Your task to perform on an android device: View the shopping cart on walmart. Add sony triple a to the cart on walmart, then select checkout. Image 0: 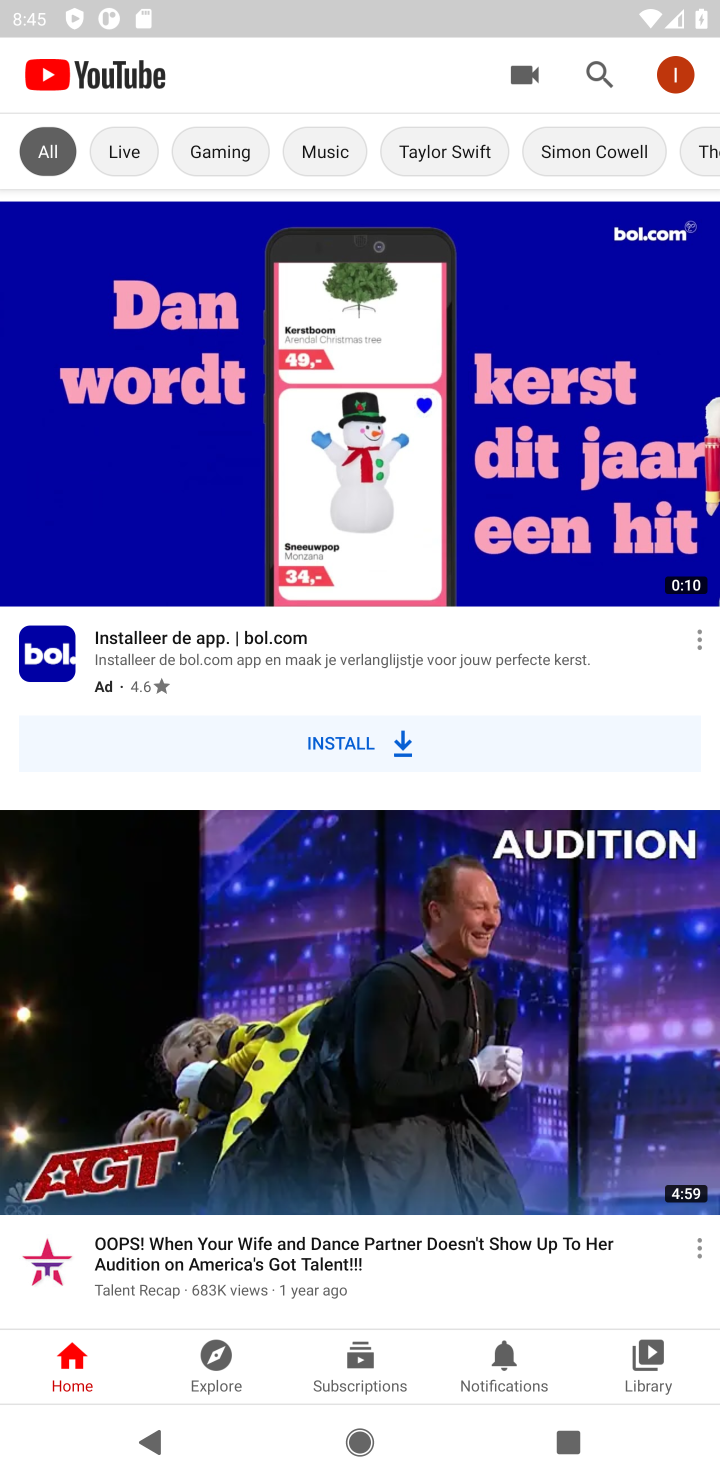
Step 0: press home button
Your task to perform on an android device: View the shopping cart on walmart. Add sony triple a to the cart on walmart, then select checkout. Image 1: 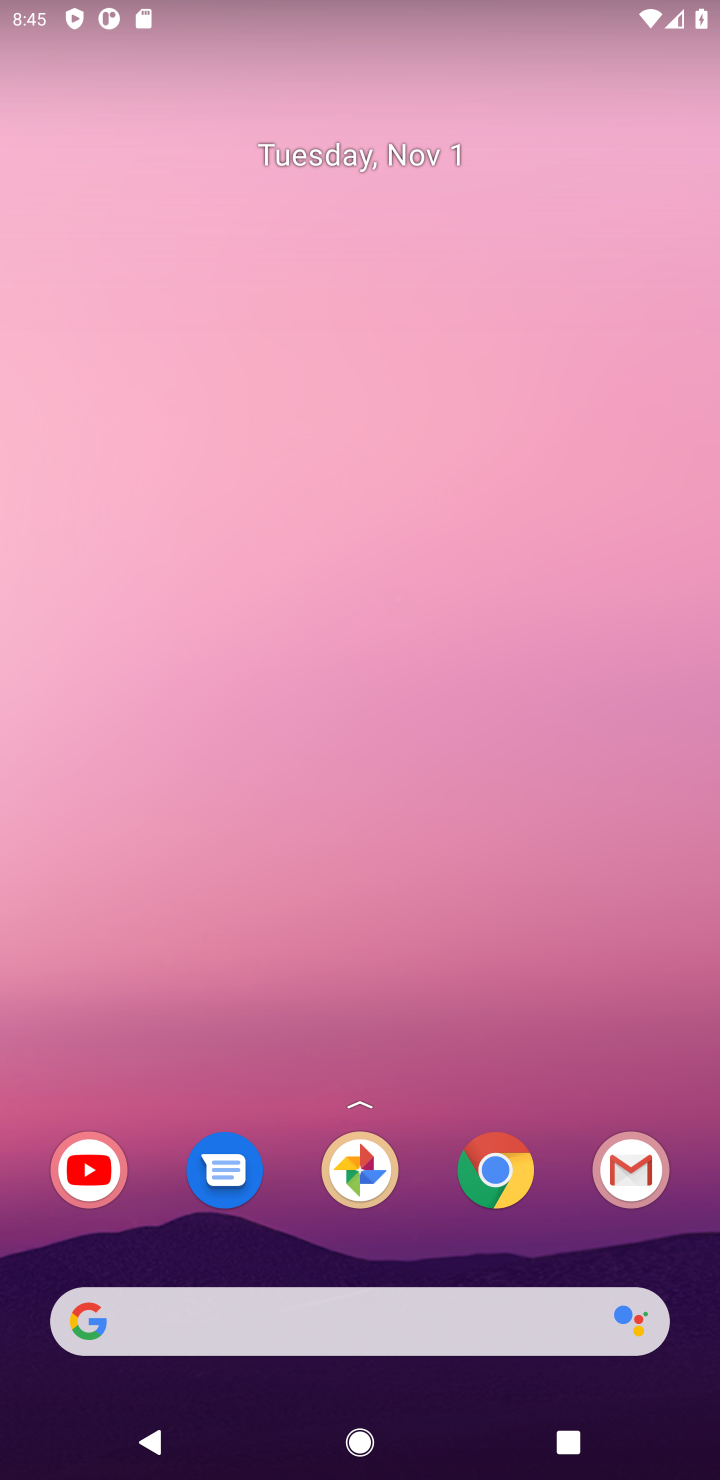
Step 1: click (491, 1196)
Your task to perform on an android device: View the shopping cart on walmart. Add sony triple a to the cart on walmart, then select checkout. Image 2: 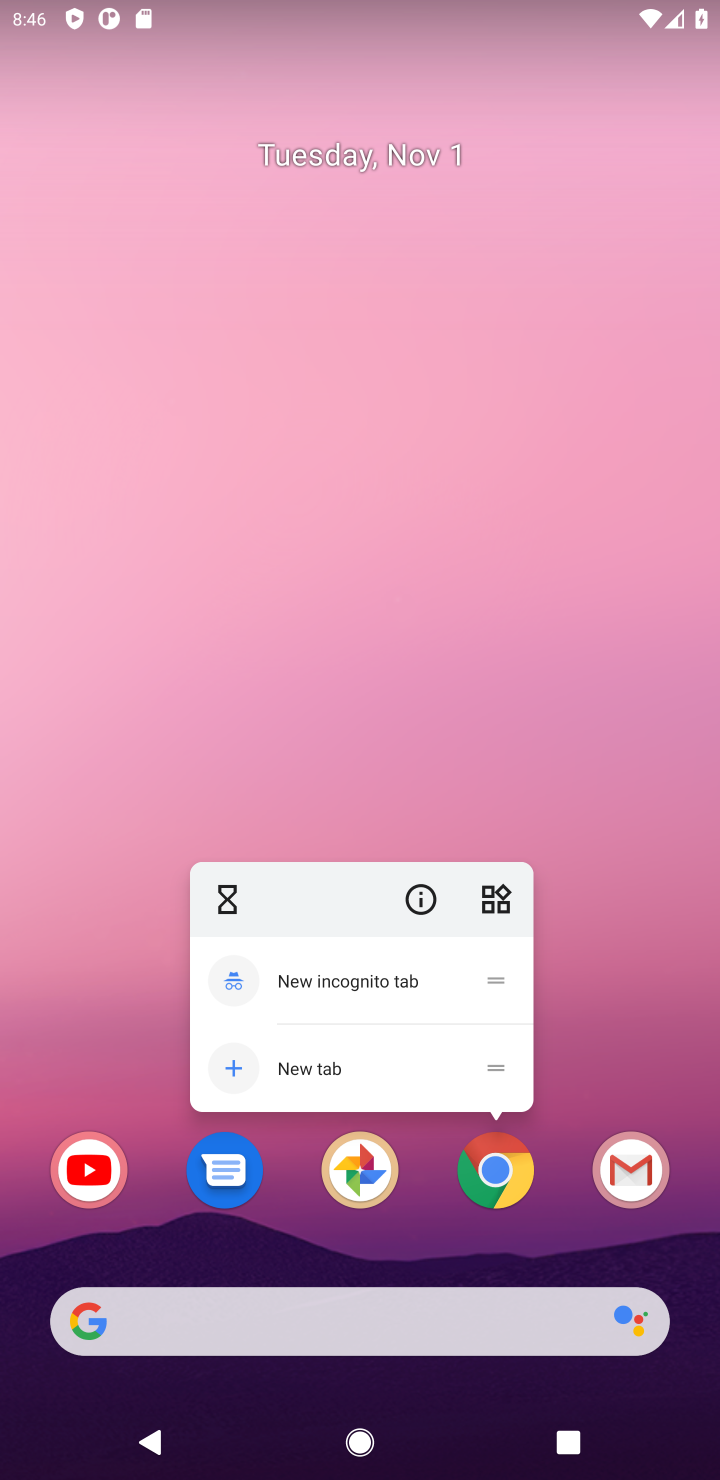
Step 2: click (487, 1194)
Your task to perform on an android device: View the shopping cart on walmart. Add sony triple a to the cart on walmart, then select checkout. Image 3: 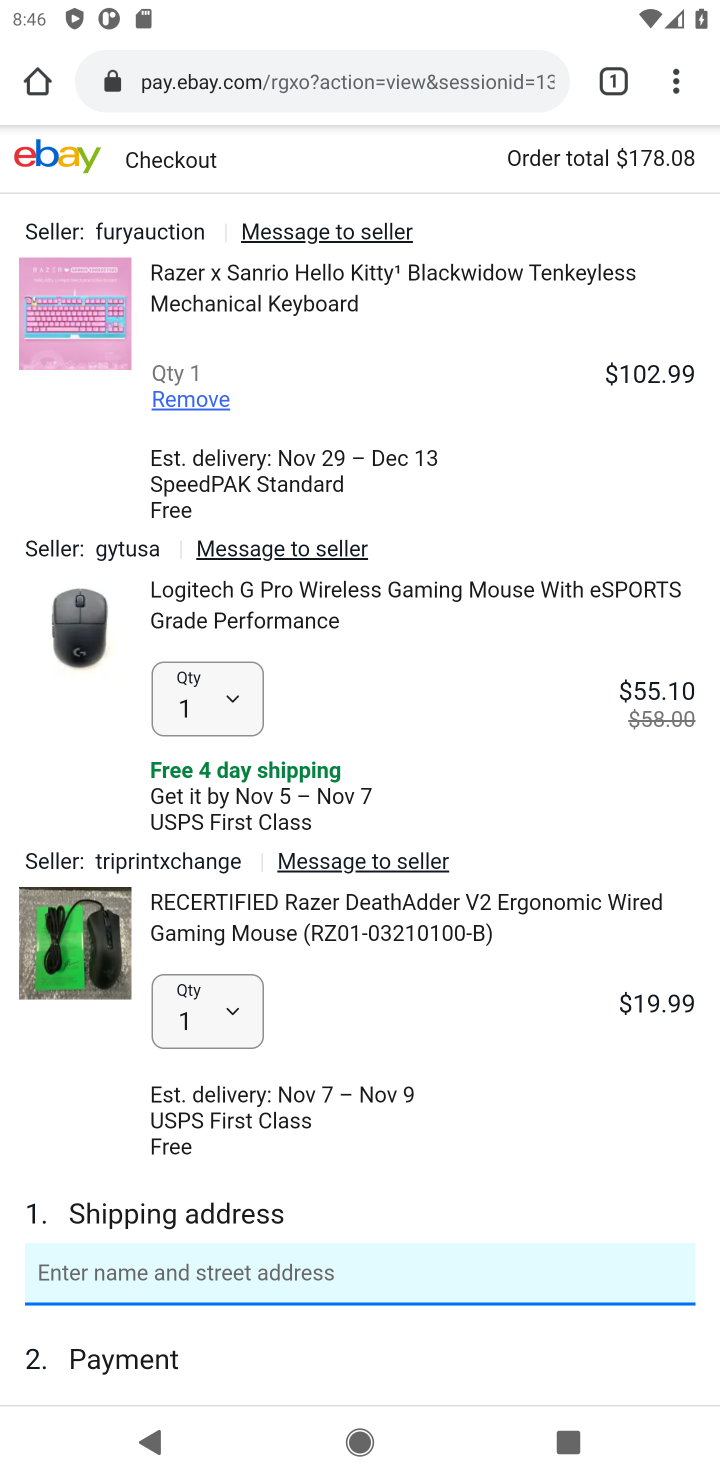
Step 3: click (363, 65)
Your task to perform on an android device: View the shopping cart on walmart. Add sony triple a to the cart on walmart, then select checkout. Image 4: 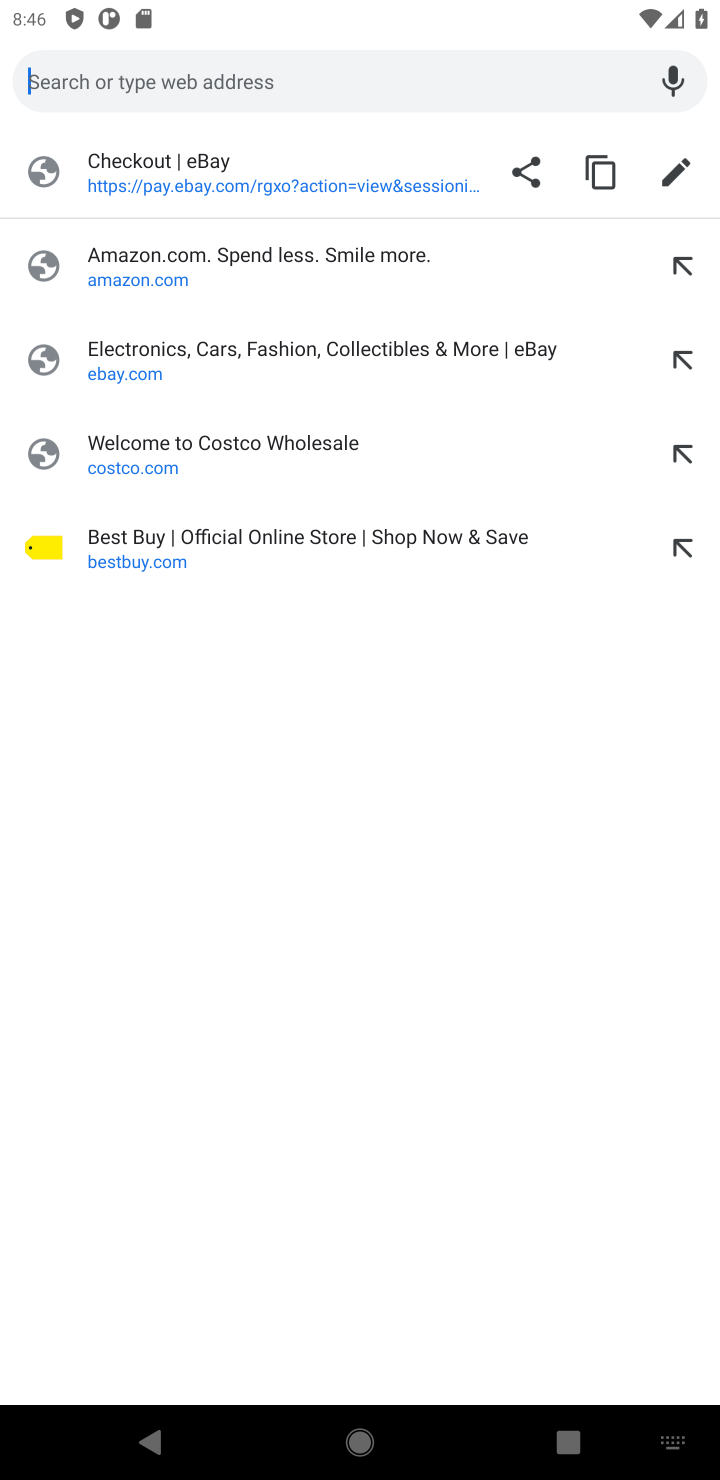
Step 4: type "walmart"
Your task to perform on an android device: View the shopping cart on walmart. Add sony triple a to the cart on walmart, then select checkout. Image 5: 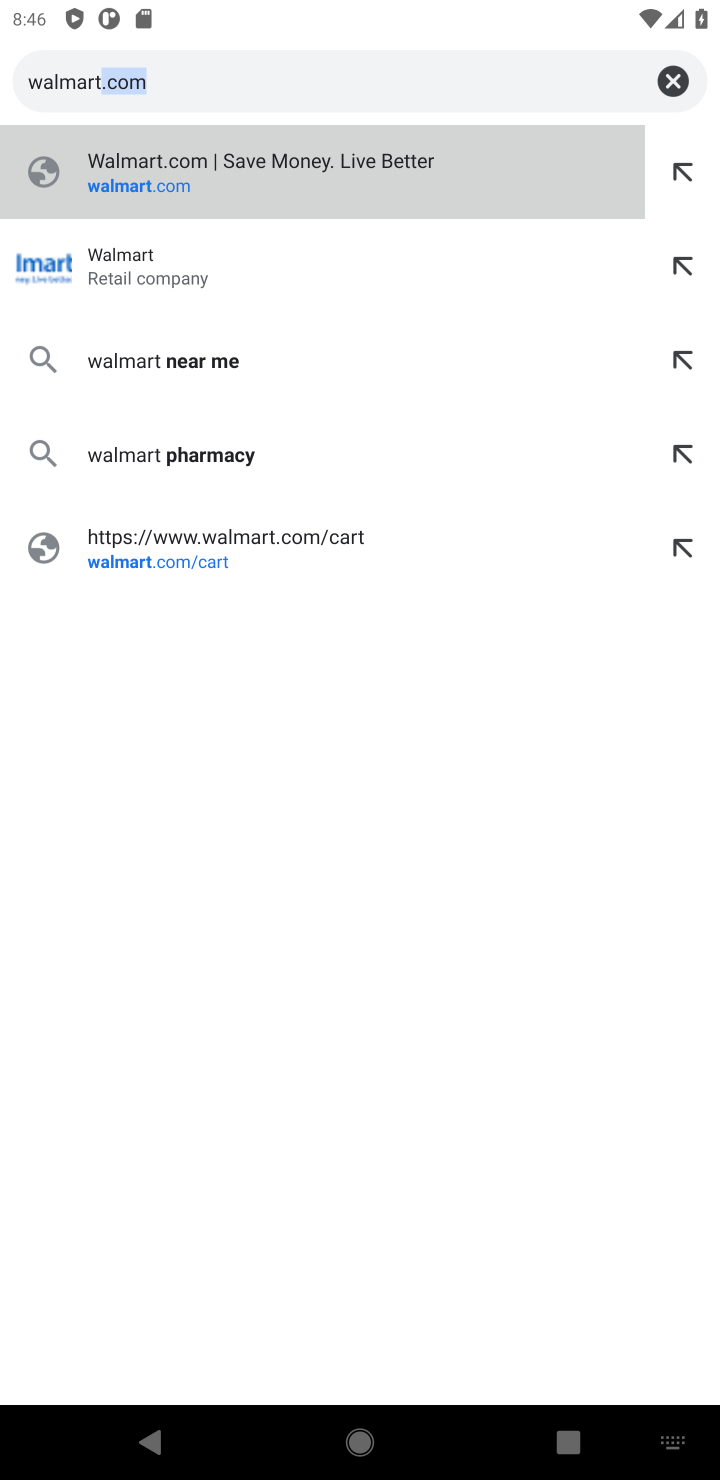
Step 5: press enter
Your task to perform on an android device: View the shopping cart on walmart. Add sony triple a to the cart on walmart, then select checkout. Image 6: 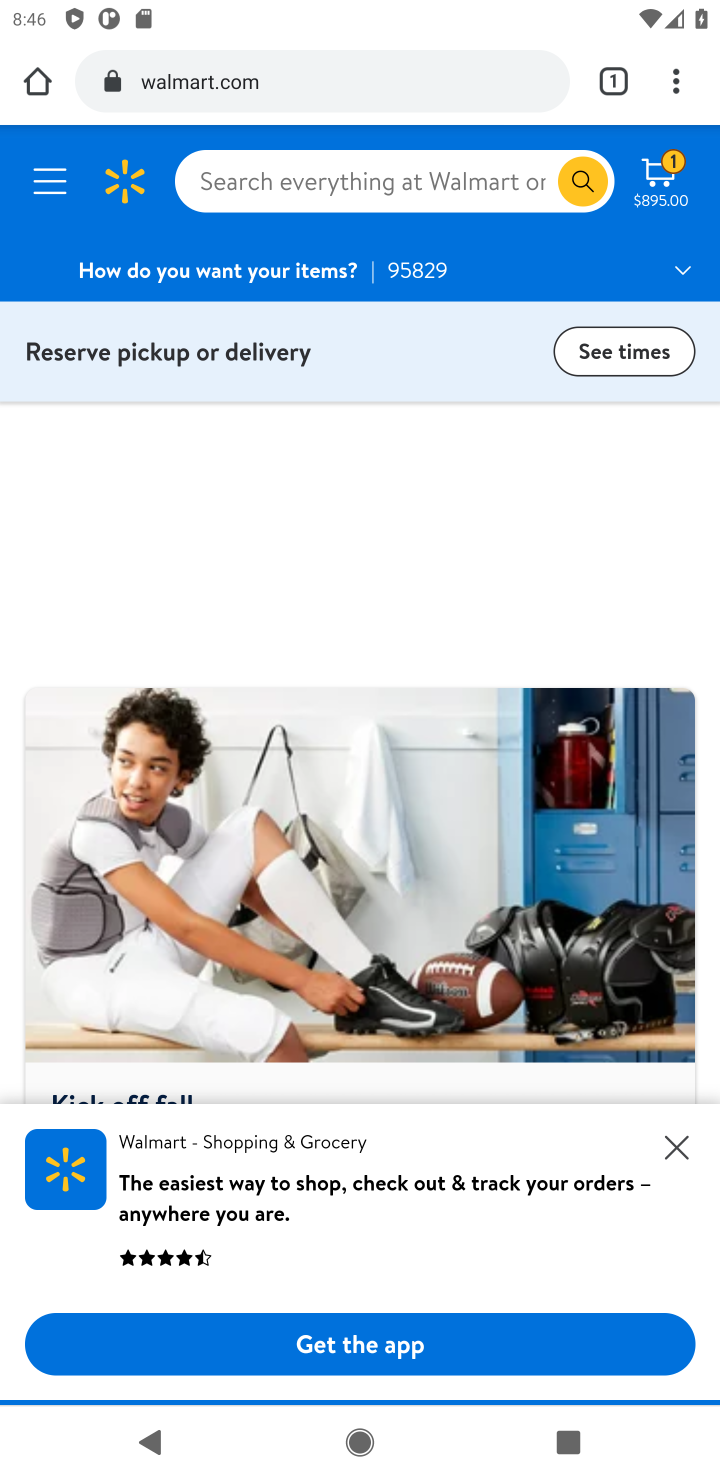
Step 6: click (673, 179)
Your task to perform on an android device: View the shopping cart on walmart. Add sony triple a to the cart on walmart, then select checkout. Image 7: 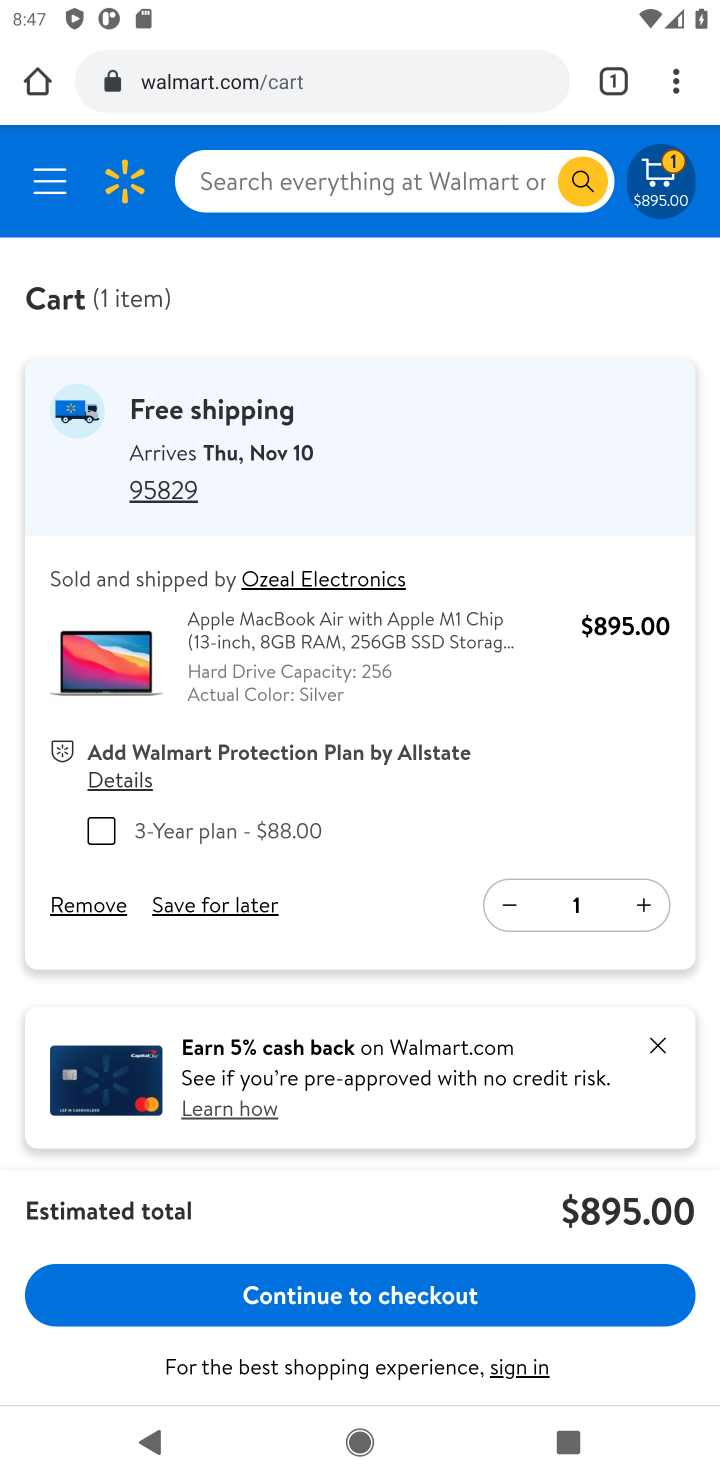
Step 7: click (427, 204)
Your task to perform on an android device: View the shopping cart on walmart. Add sony triple a to the cart on walmart, then select checkout. Image 8: 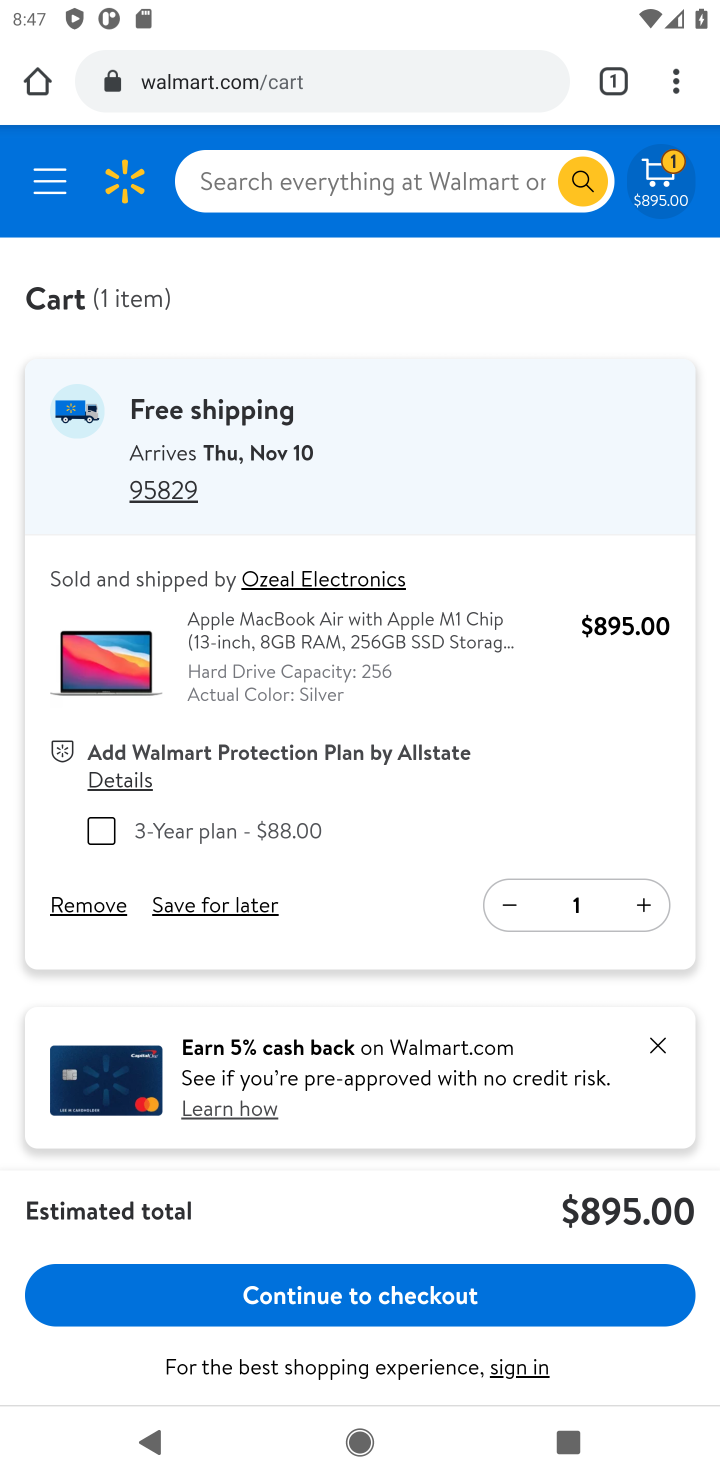
Step 8: click (430, 182)
Your task to perform on an android device: View the shopping cart on walmart. Add sony triple a to the cart on walmart, then select checkout. Image 9: 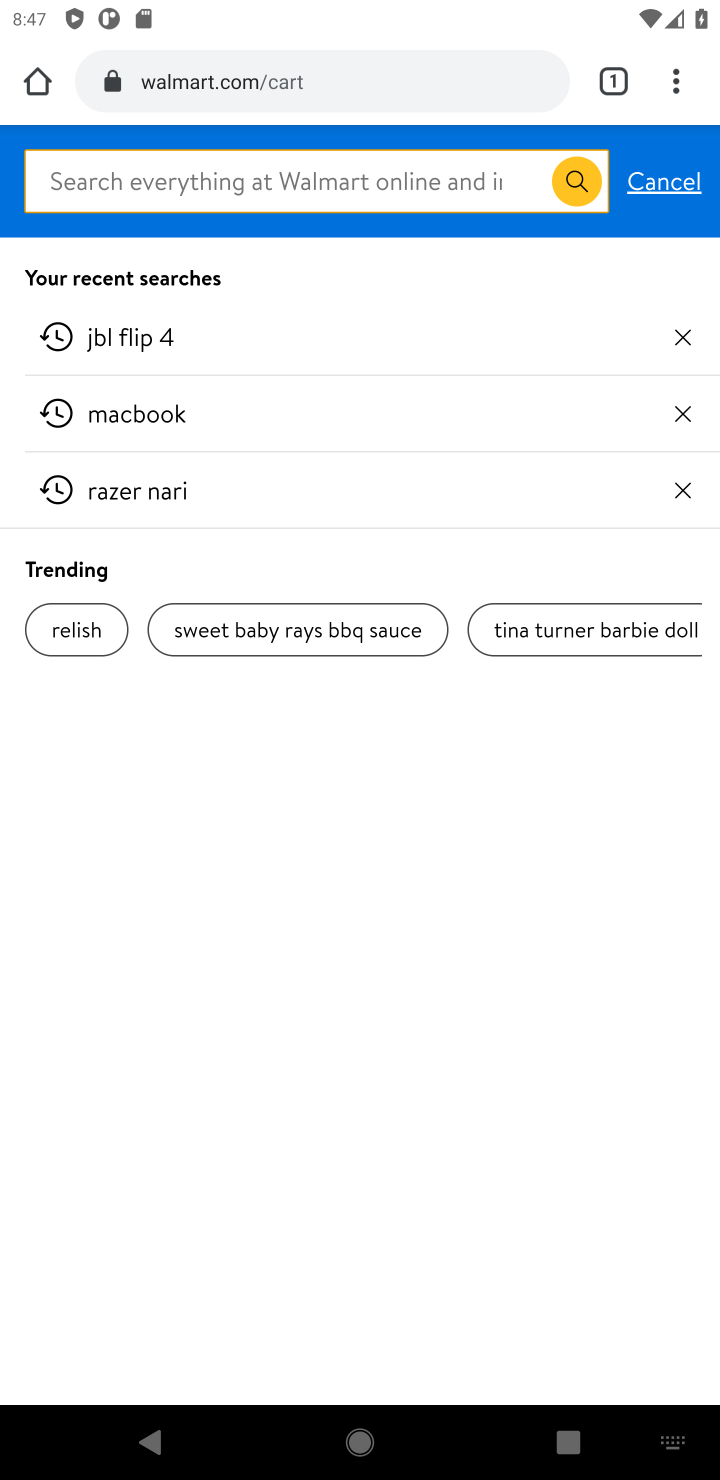
Step 9: type "walmart"
Your task to perform on an android device: View the shopping cart on walmart. Add sony triple a to the cart on walmart, then select checkout. Image 10: 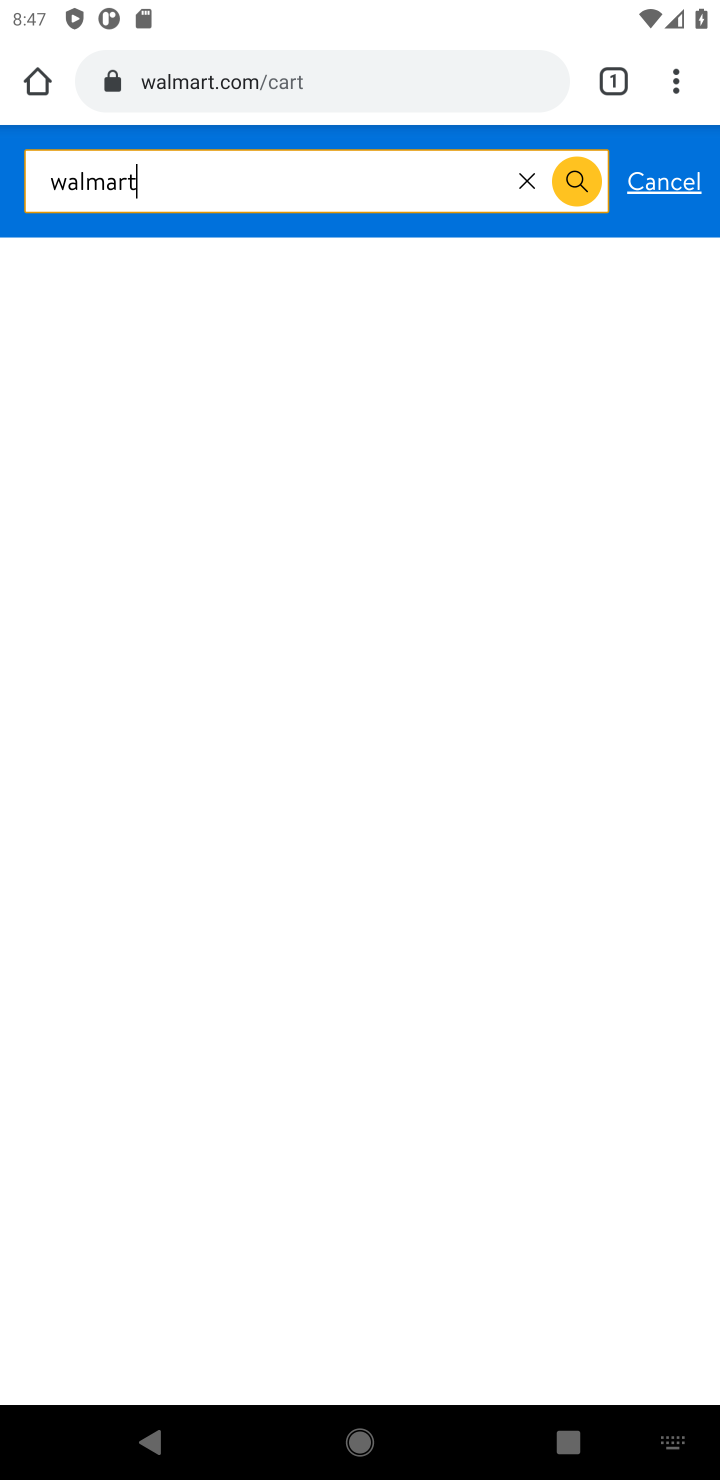
Step 10: type ""
Your task to perform on an android device: View the shopping cart on walmart. Add sony triple a to the cart on walmart, then select checkout. Image 11: 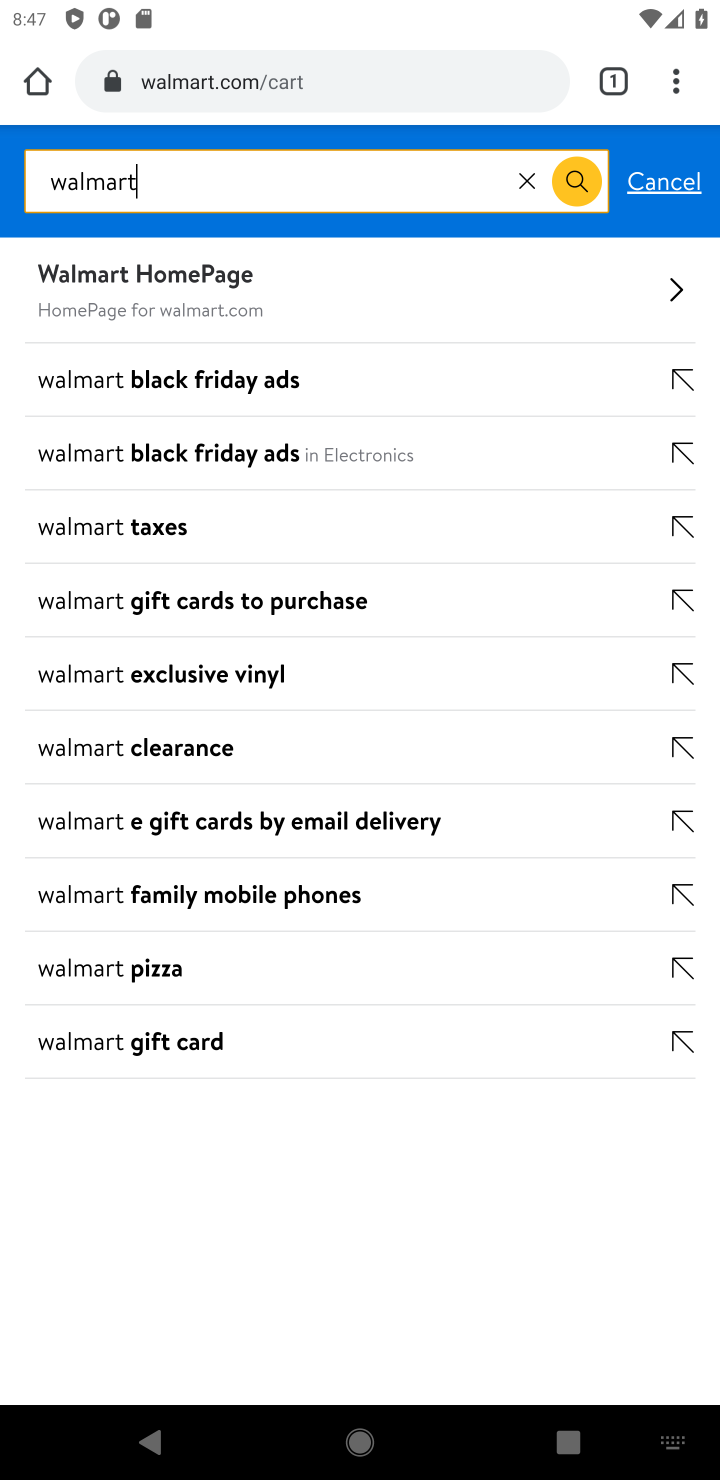
Step 11: click (711, 180)
Your task to perform on an android device: View the shopping cart on walmart. Add sony triple a to the cart on walmart, then select checkout. Image 12: 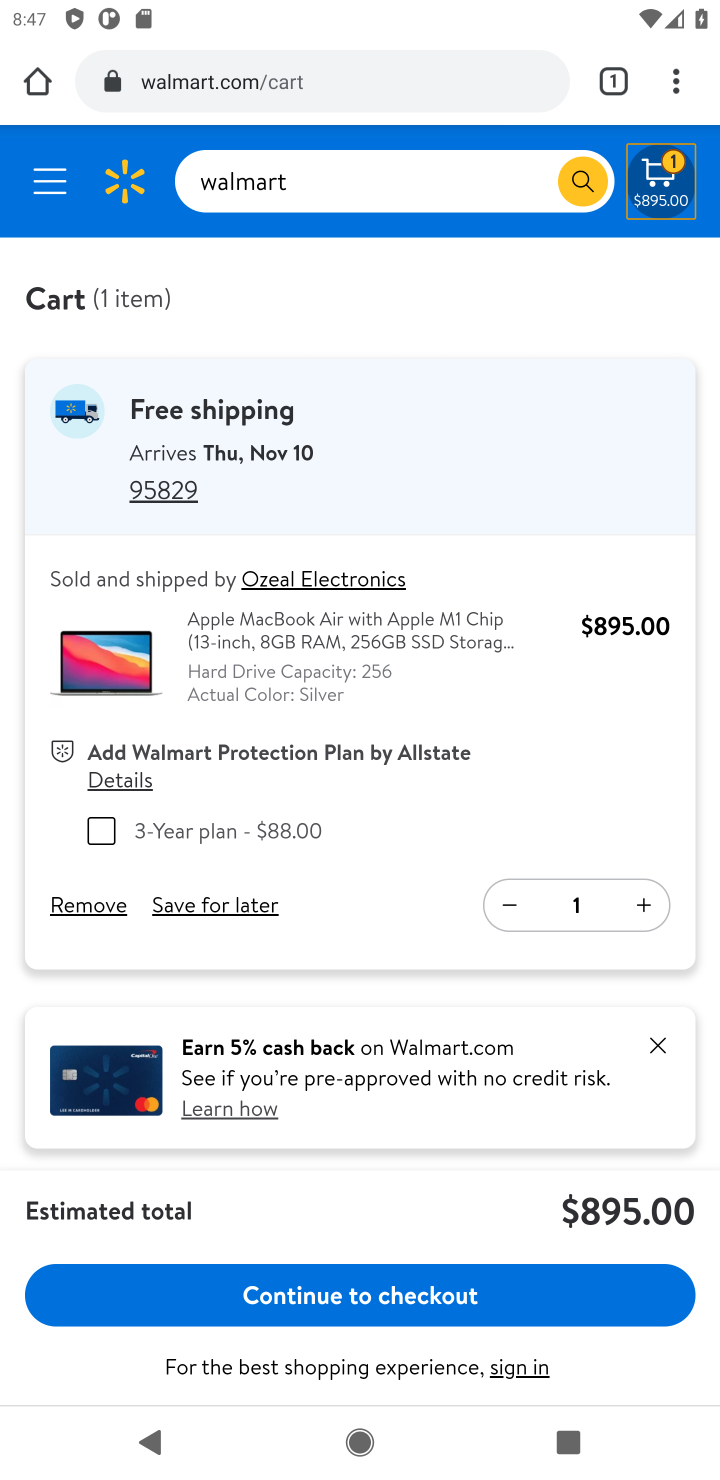
Step 12: click (530, 179)
Your task to perform on an android device: View the shopping cart on walmart. Add sony triple a to the cart on walmart, then select checkout. Image 13: 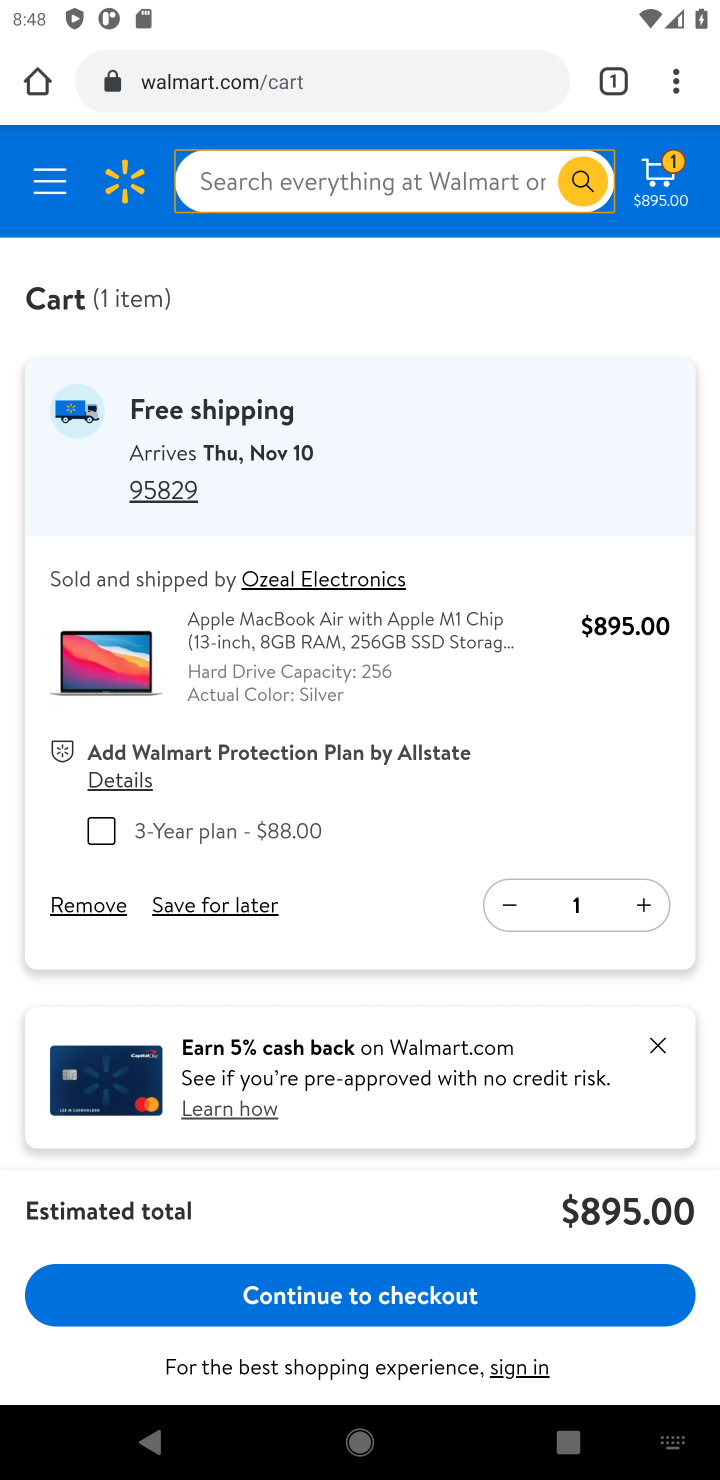
Step 13: drag from (283, 805) to (336, 674)
Your task to perform on an android device: View the shopping cart on walmart. Add sony triple a to the cart on walmart, then select checkout. Image 14: 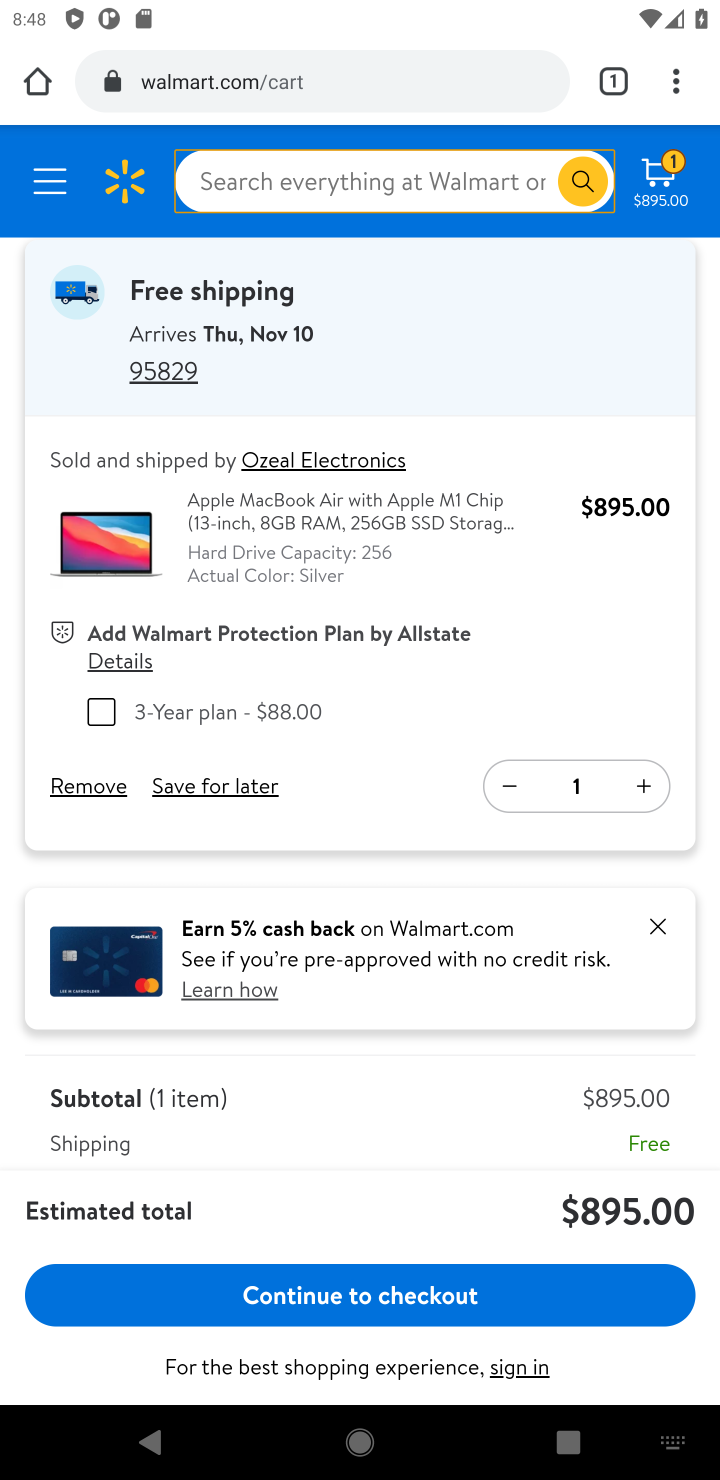
Step 14: click (326, 177)
Your task to perform on an android device: View the shopping cart on walmart. Add sony triple a to the cart on walmart, then select checkout. Image 15: 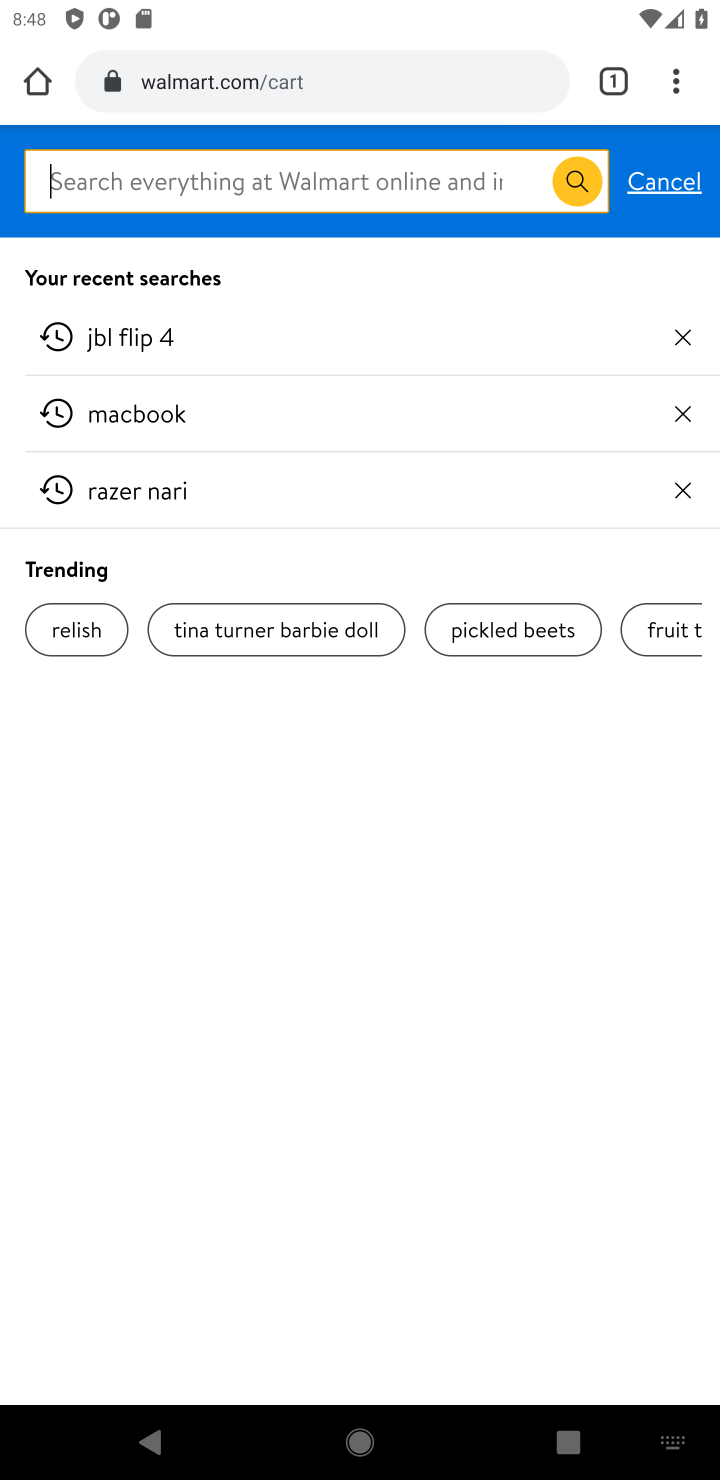
Step 15: type "sony triple a "
Your task to perform on an android device: View the shopping cart on walmart. Add sony triple a to the cart on walmart, then select checkout. Image 16: 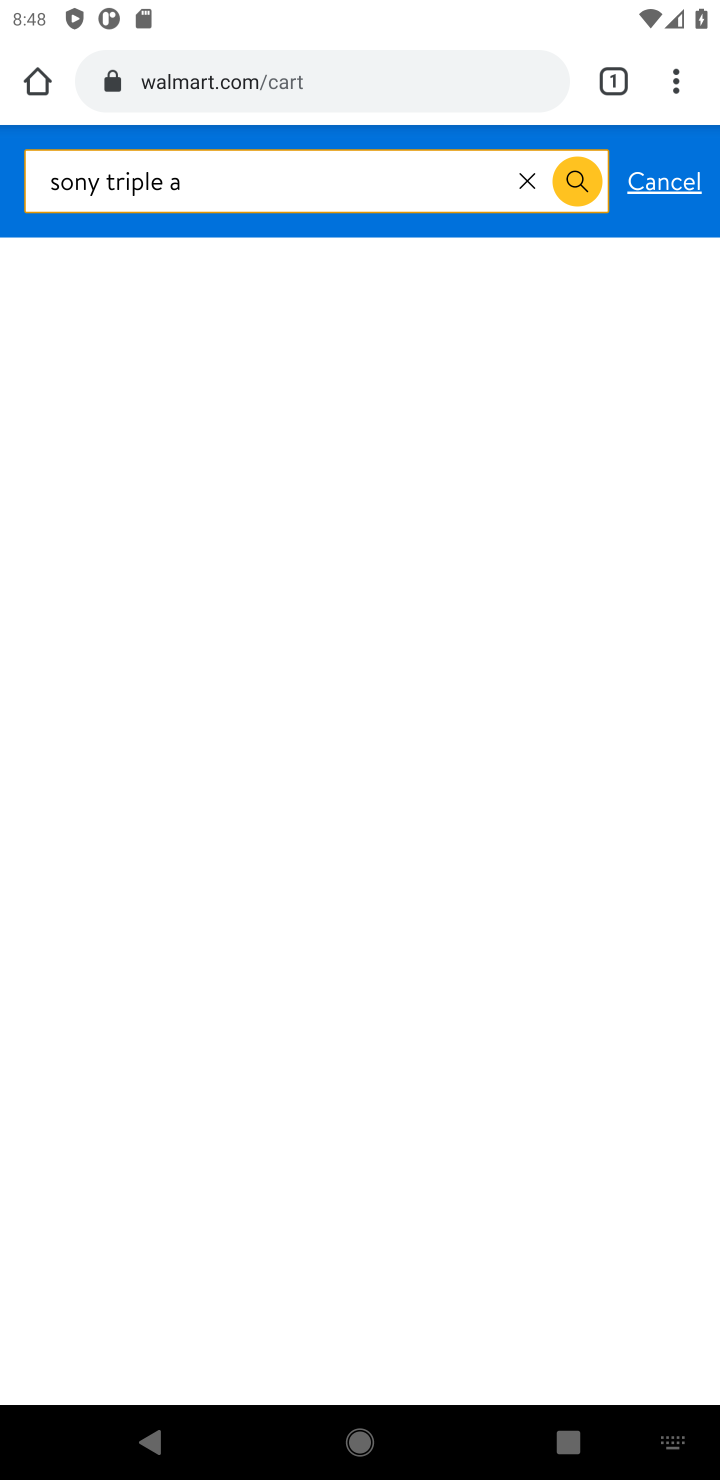
Step 16: press enter
Your task to perform on an android device: View the shopping cart on walmart. Add sony triple a to the cart on walmart, then select checkout. Image 17: 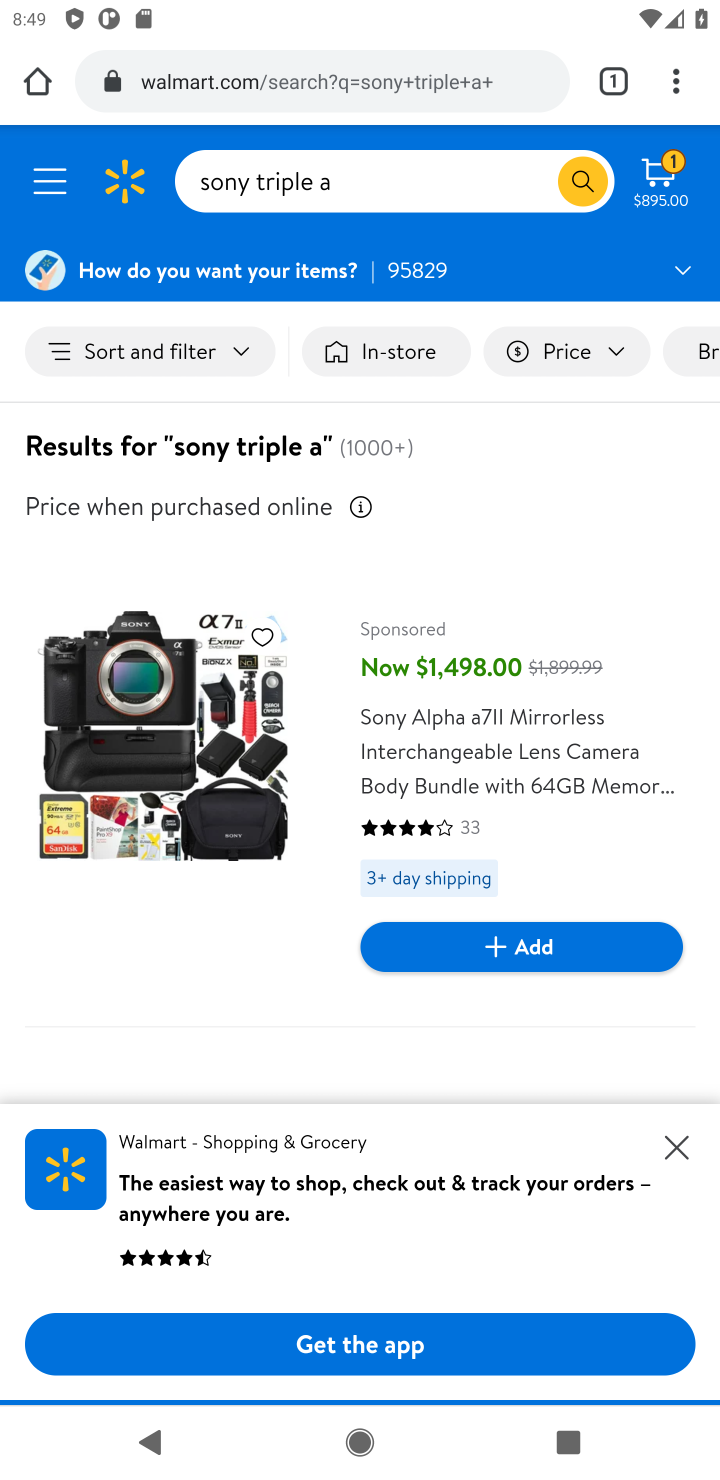
Step 17: task complete